Your task to perform on an android device: Open Chrome and go to settings Image 0: 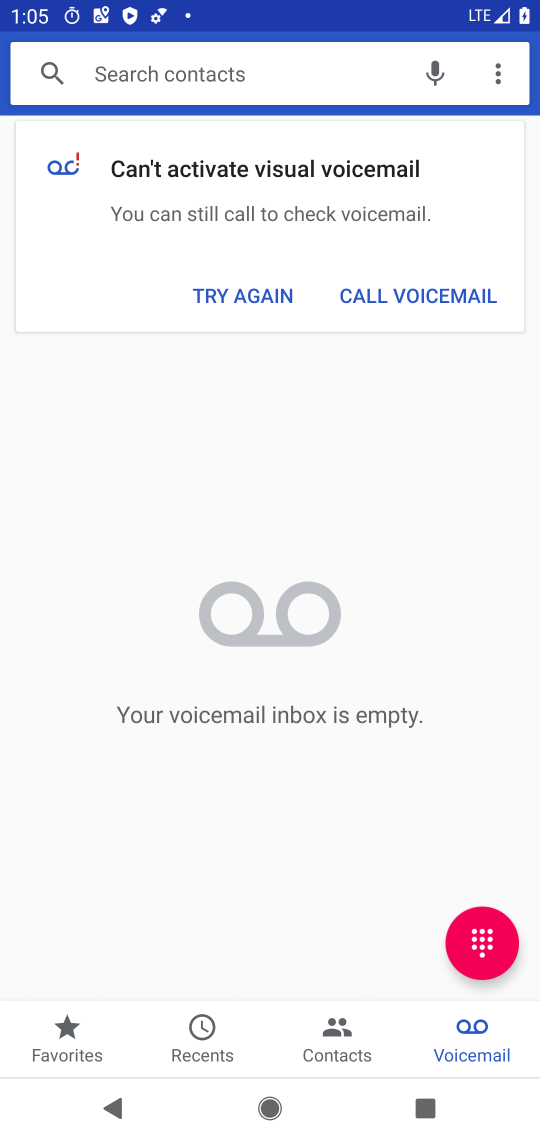
Step 0: press home button
Your task to perform on an android device: Open Chrome and go to settings Image 1: 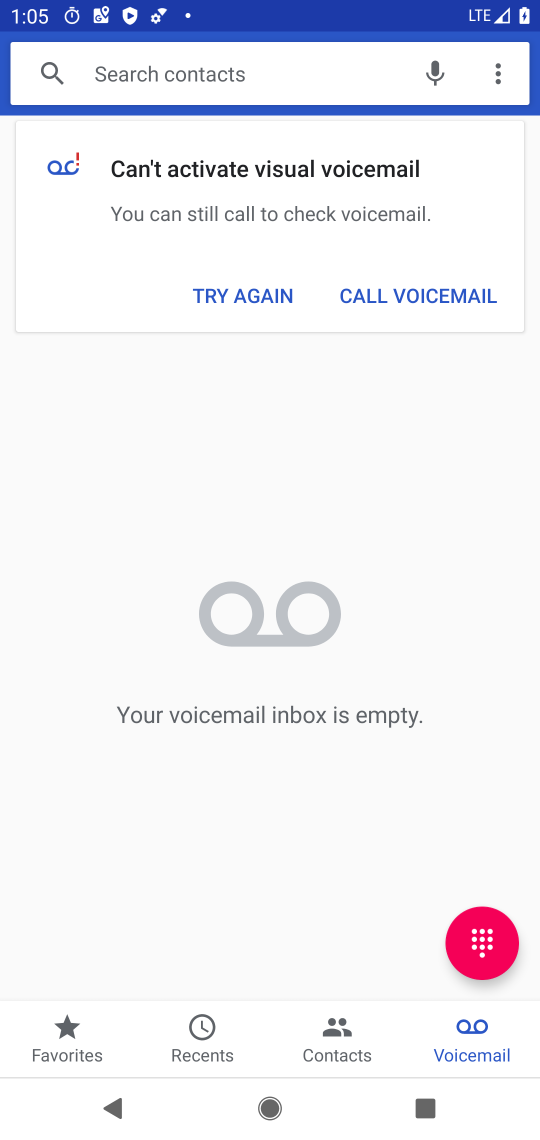
Step 1: press home button
Your task to perform on an android device: Open Chrome and go to settings Image 2: 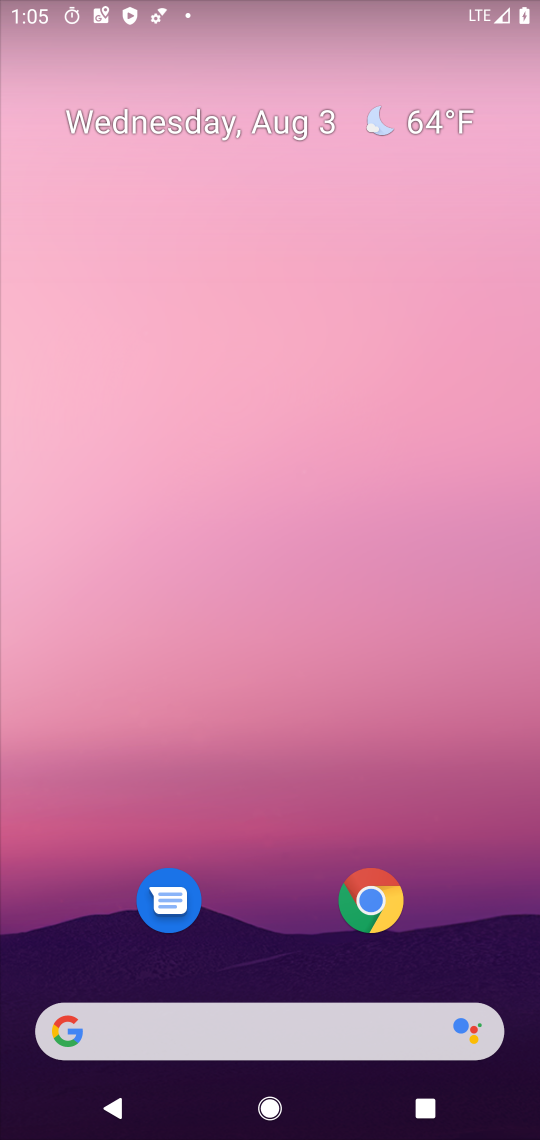
Step 2: drag from (295, 617) to (332, 57)
Your task to perform on an android device: Open Chrome and go to settings Image 3: 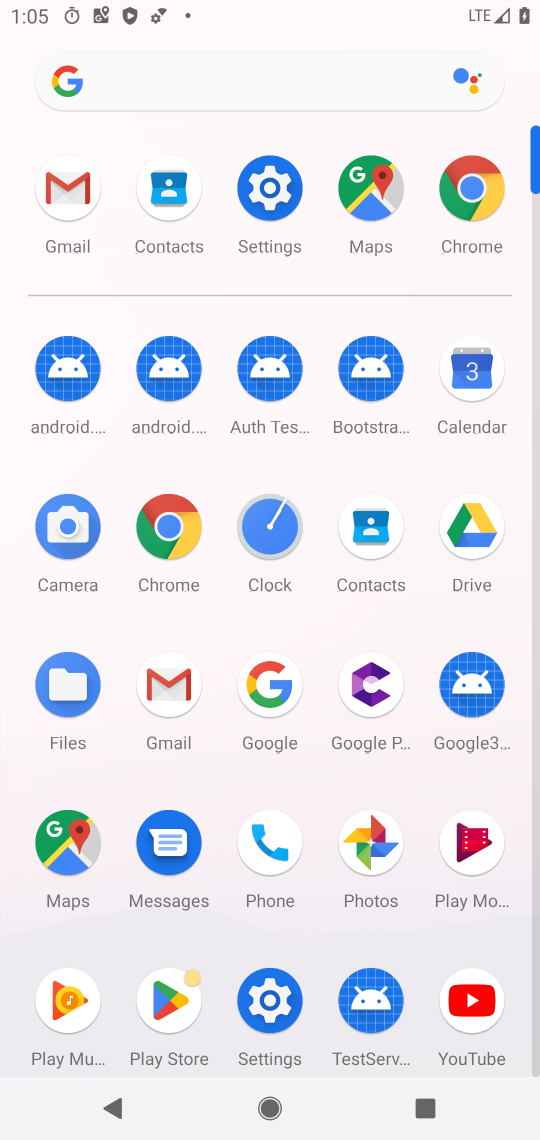
Step 3: click (166, 524)
Your task to perform on an android device: Open Chrome and go to settings Image 4: 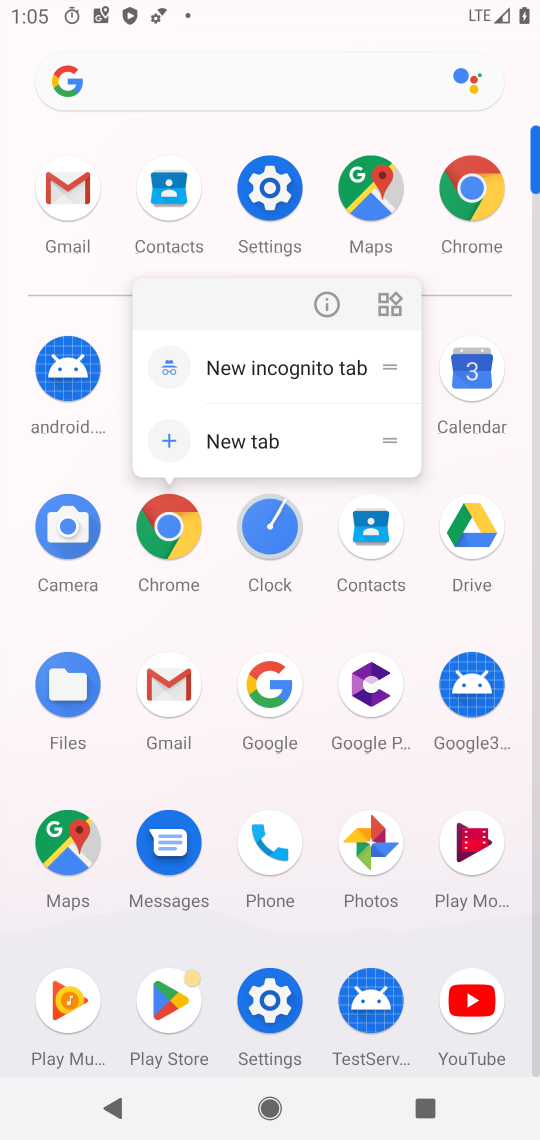
Step 4: click (170, 524)
Your task to perform on an android device: Open Chrome and go to settings Image 5: 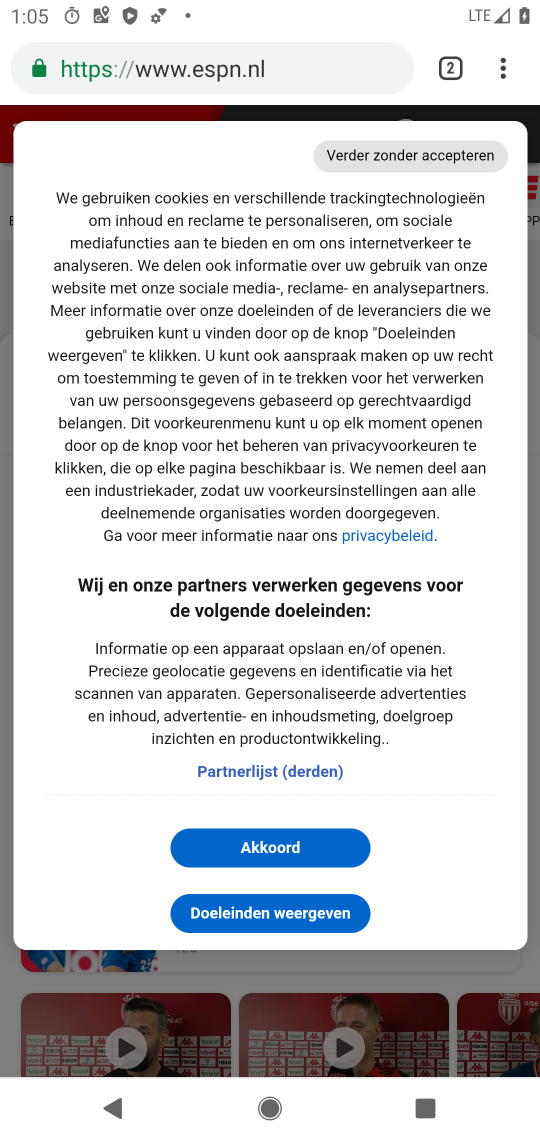
Step 5: task complete